Your task to perform on an android device: turn off javascript in the chrome app Image 0: 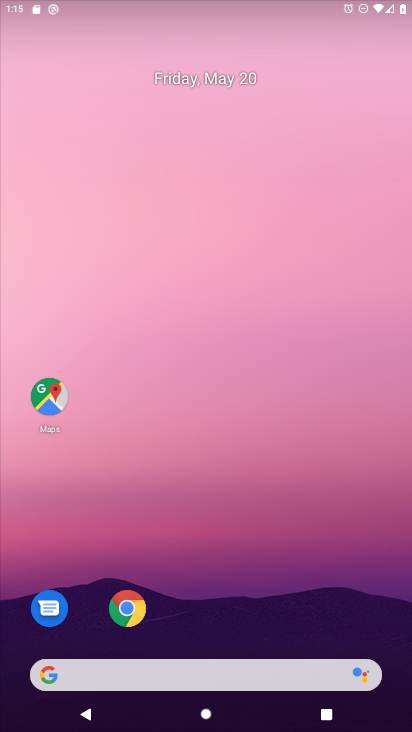
Step 0: press home button
Your task to perform on an android device: turn off javascript in the chrome app Image 1: 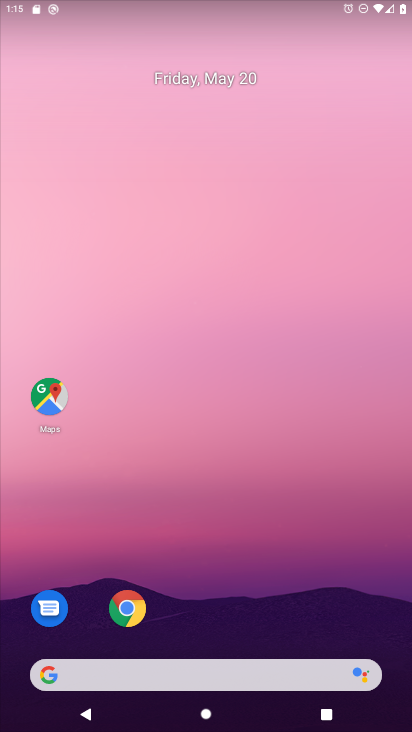
Step 1: click (120, 610)
Your task to perform on an android device: turn off javascript in the chrome app Image 2: 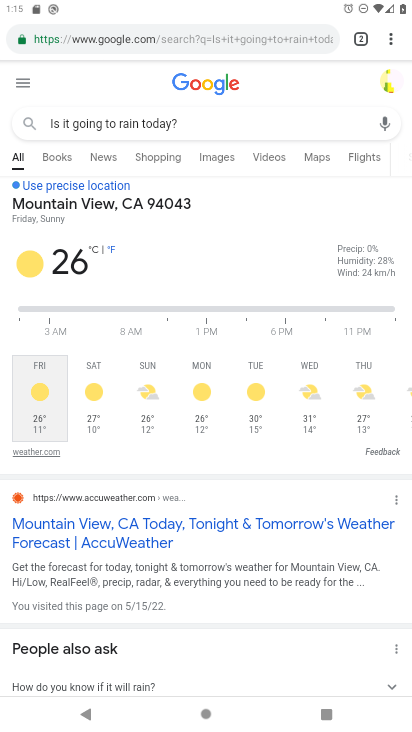
Step 2: drag from (389, 35) to (266, 423)
Your task to perform on an android device: turn off javascript in the chrome app Image 3: 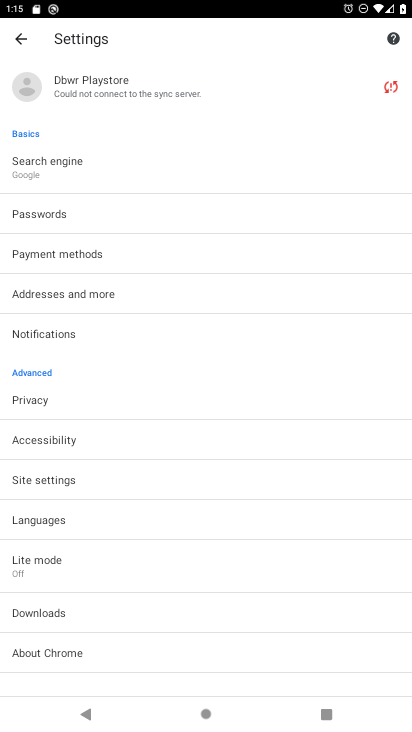
Step 3: click (71, 485)
Your task to perform on an android device: turn off javascript in the chrome app Image 4: 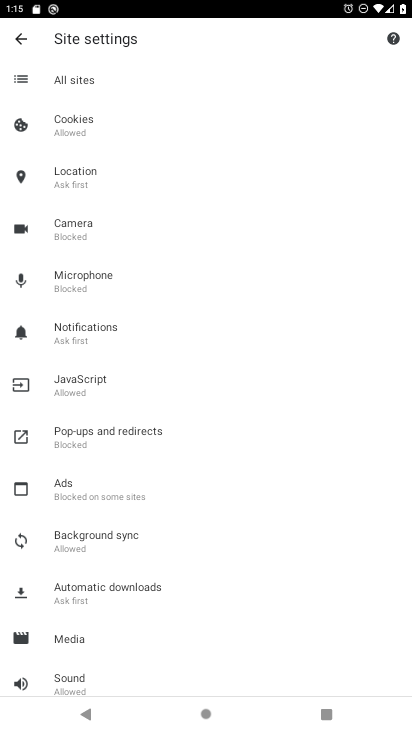
Step 4: click (86, 368)
Your task to perform on an android device: turn off javascript in the chrome app Image 5: 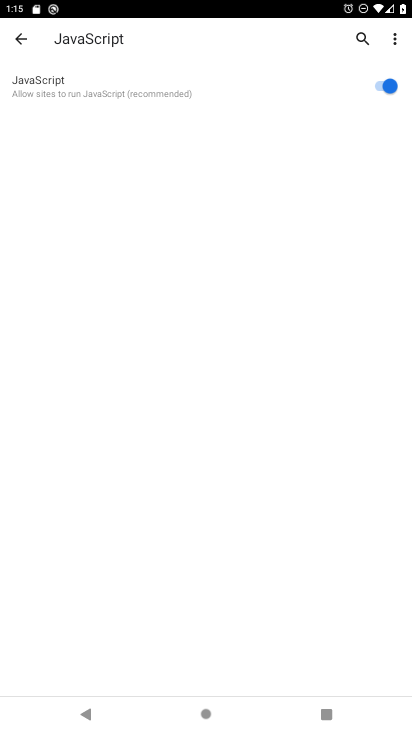
Step 5: click (366, 88)
Your task to perform on an android device: turn off javascript in the chrome app Image 6: 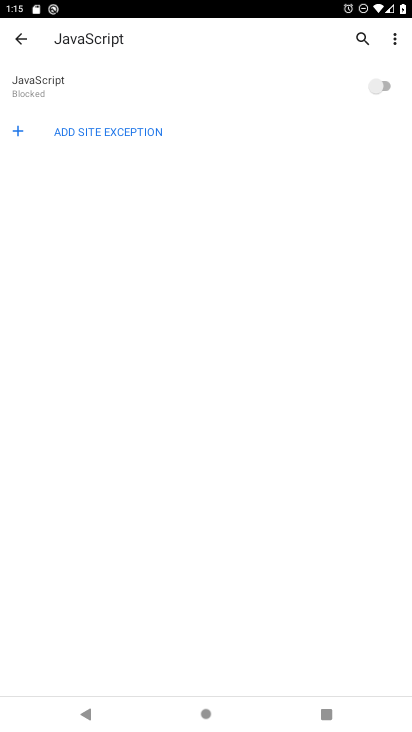
Step 6: task complete